Your task to perform on an android device: turn off airplane mode Image 0: 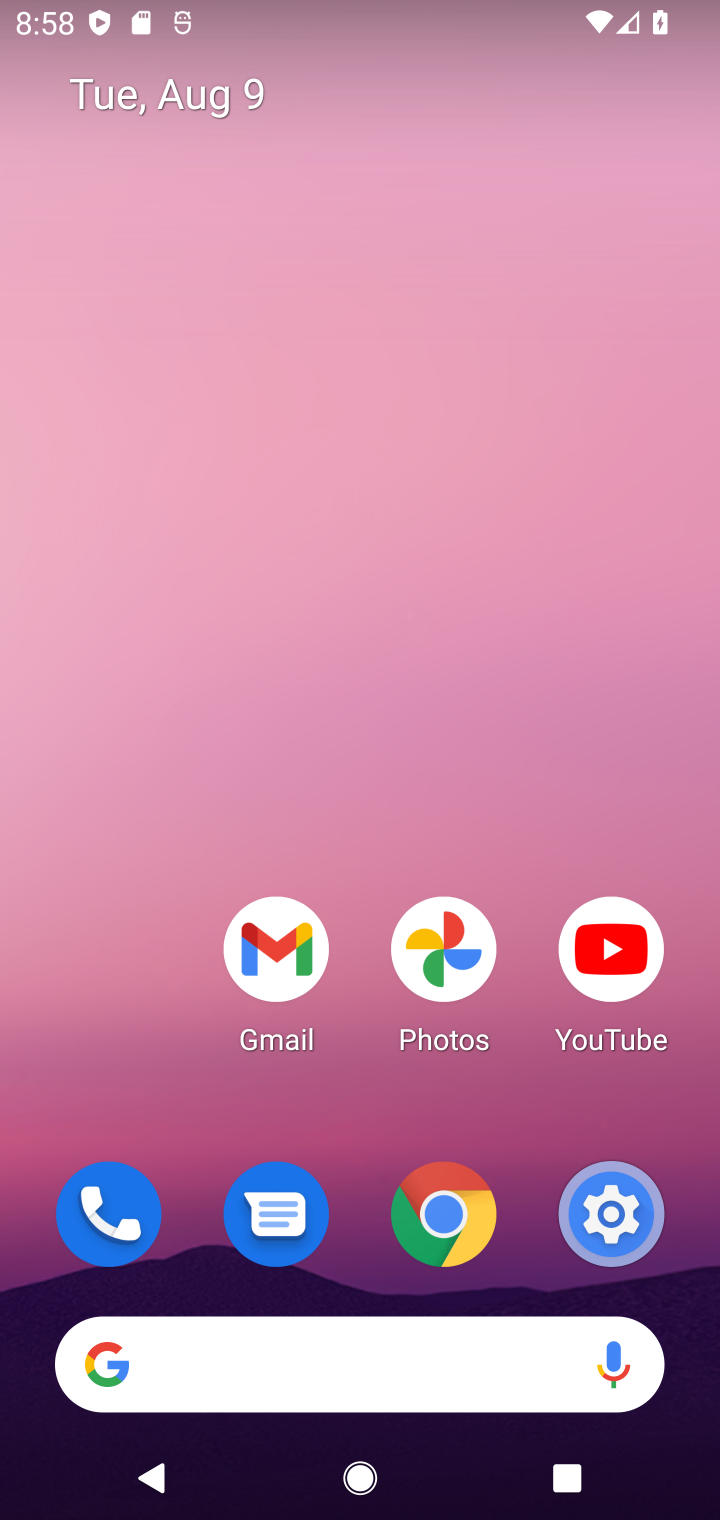
Step 0: drag from (108, 1450) to (528, 569)
Your task to perform on an android device: turn off airplane mode Image 1: 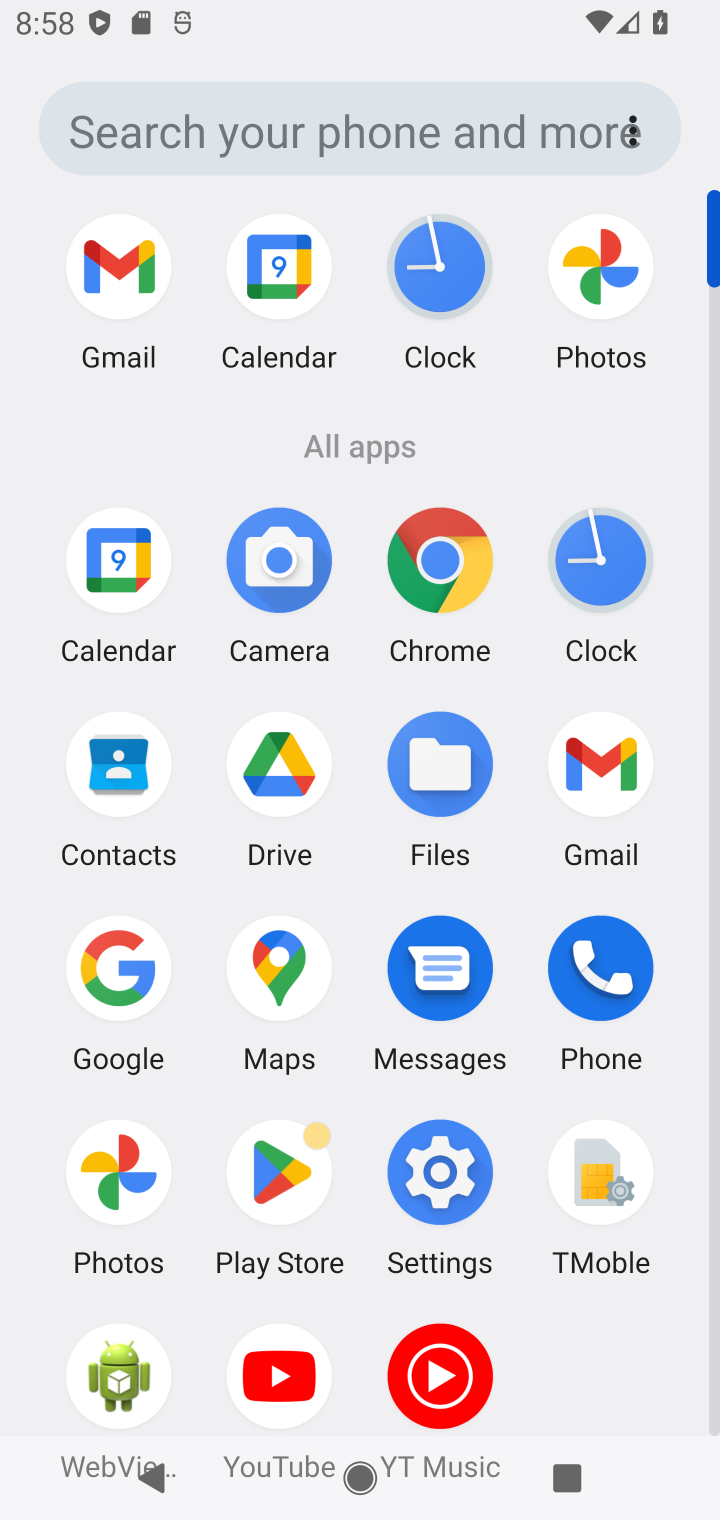
Step 1: click (448, 1179)
Your task to perform on an android device: turn off airplane mode Image 2: 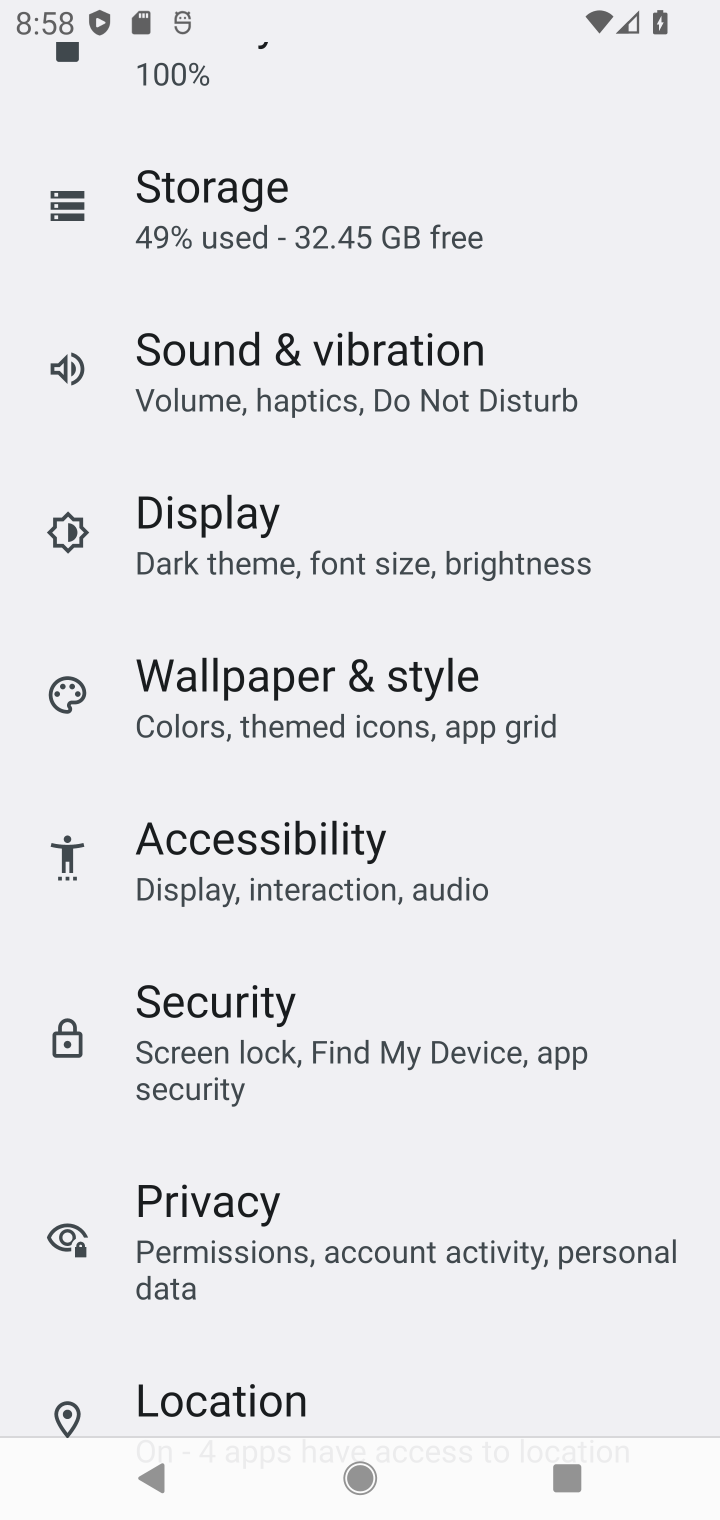
Step 2: drag from (400, 1335) to (356, 651)
Your task to perform on an android device: turn off airplane mode Image 3: 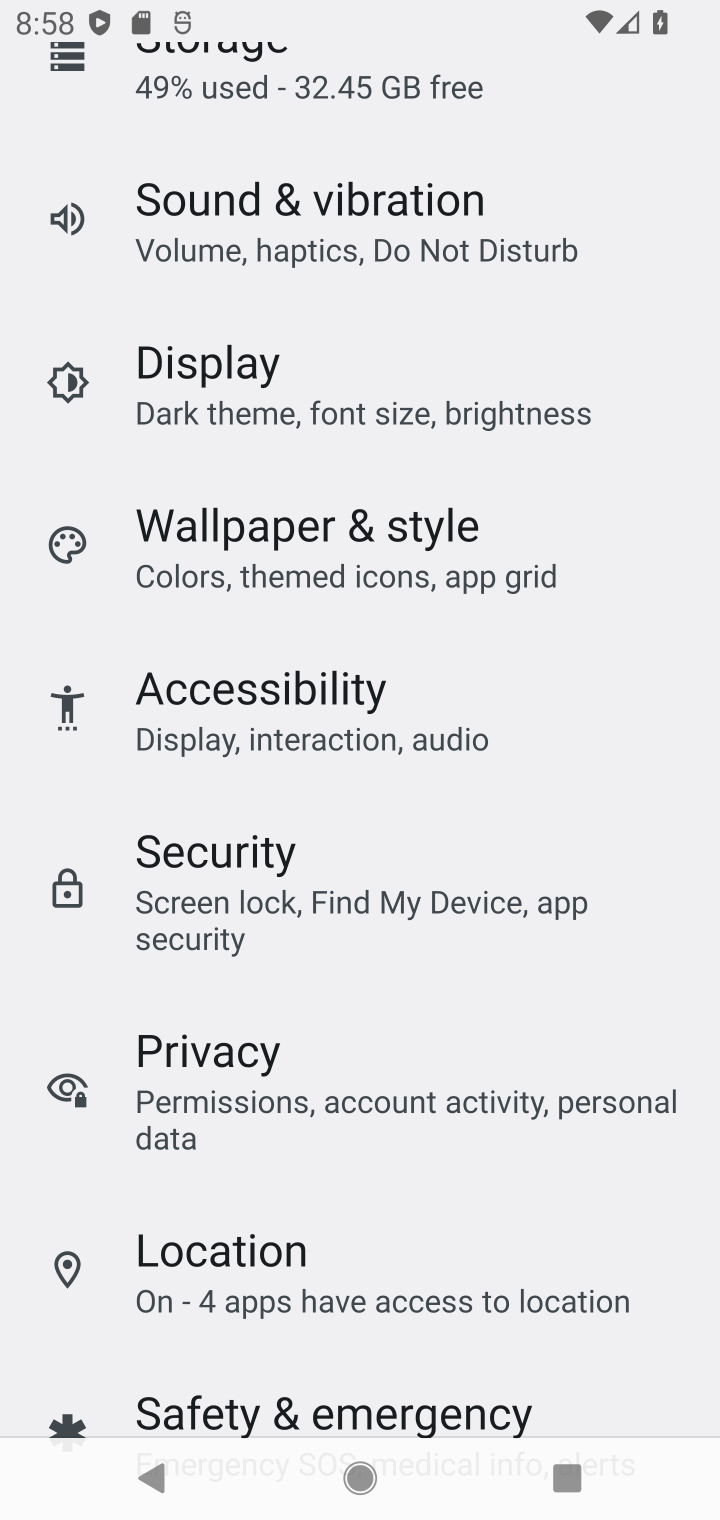
Step 3: drag from (514, 144) to (445, 1190)
Your task to perform on an android device: turn off airplane mode Image 4: 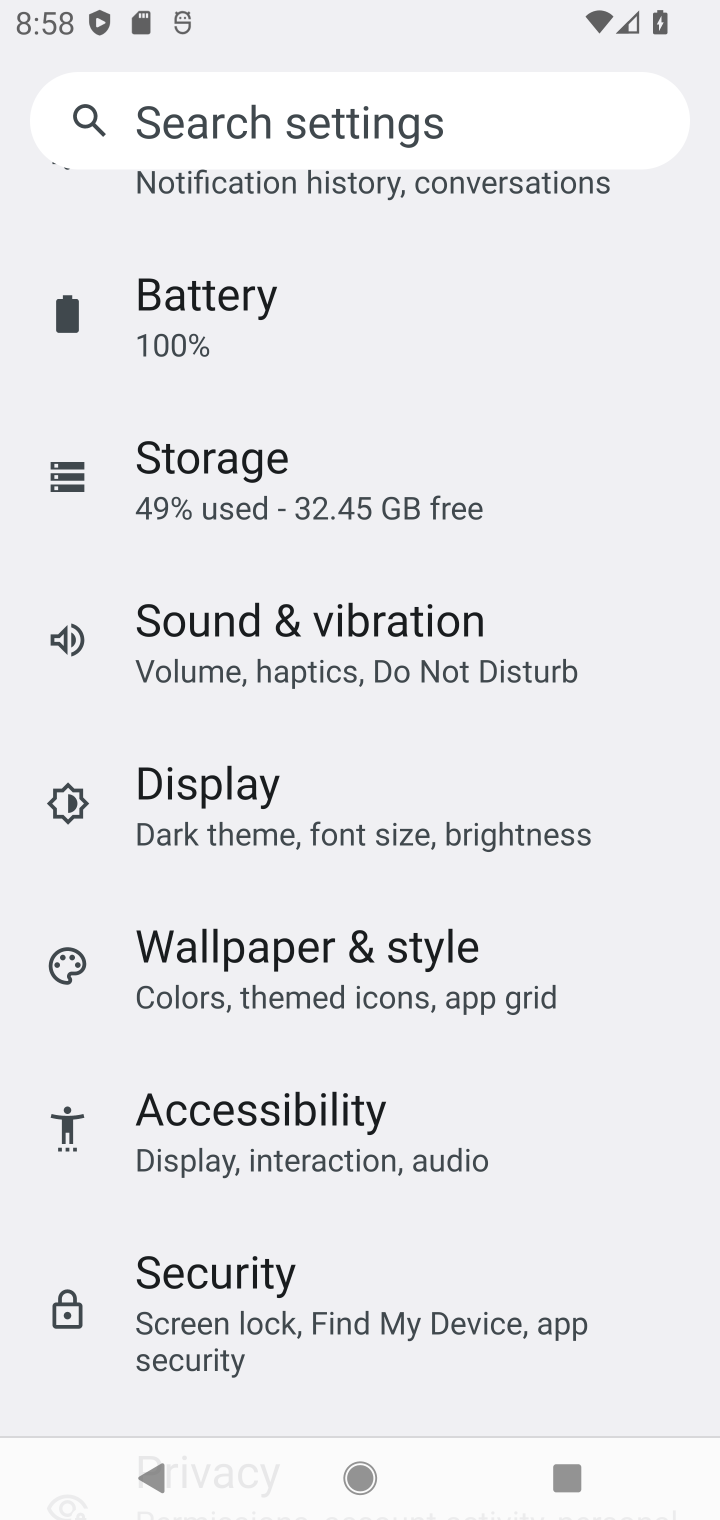
Step 4: drag from (485, 418) to (456, 1305)
Your task to perform on an android device: turn off airplane mode Image 5: 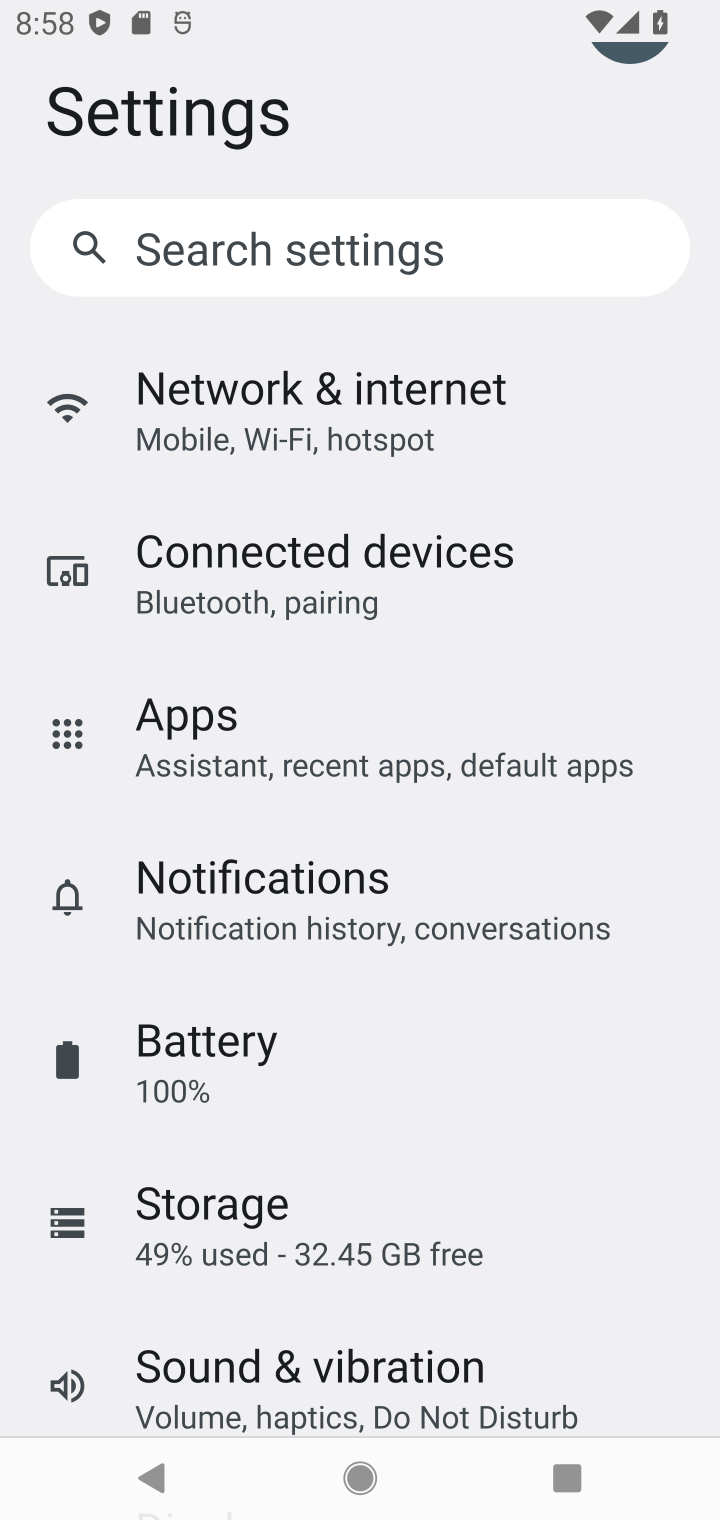
Step 5: click (300, 429)
Your task to perform on an android device: turn off airplane mode Image 6: 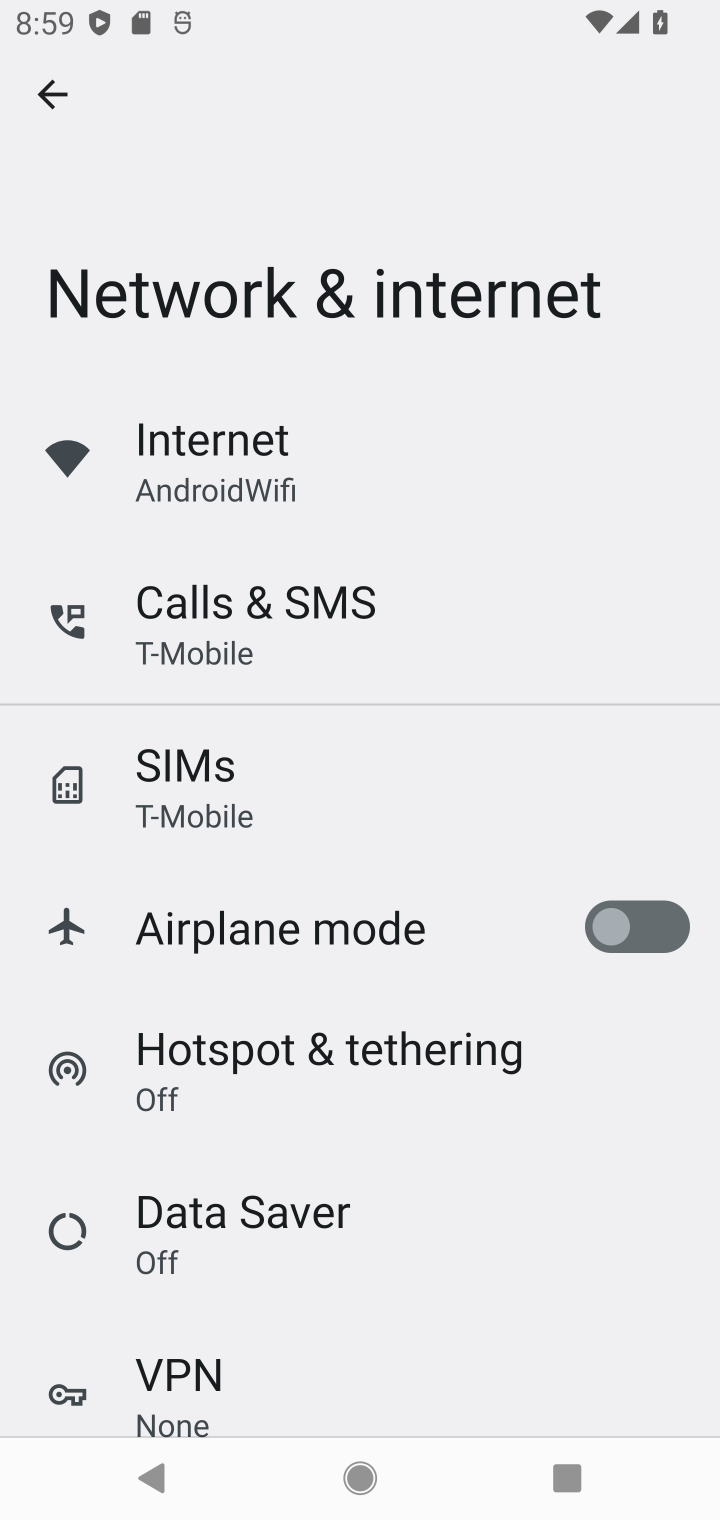
Step 6: task complete